Your task to perform on an android device: set the timer Image 0: 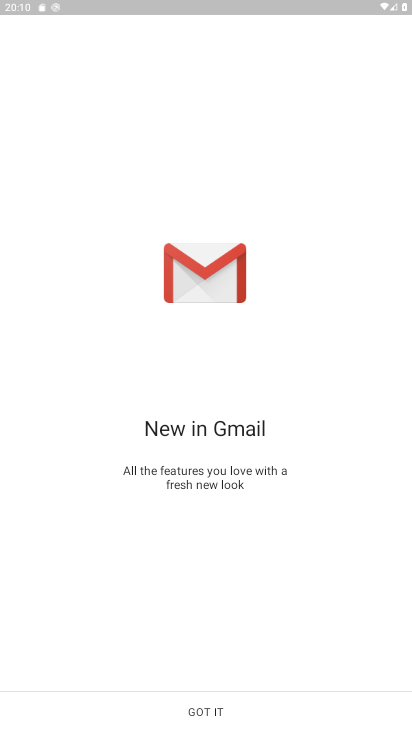
Step 0: press home button
Your task to perform on an android device: set the timer Image 1: 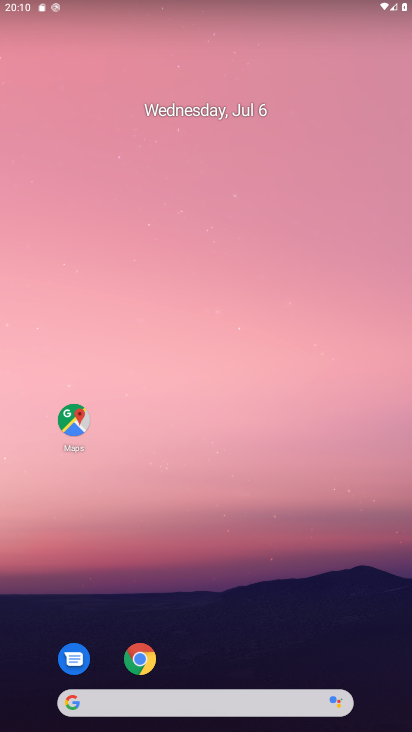
Step 1: drag from (134, 654) to (281, 114)
Your task to perform on an android device: set the timer Image 2: 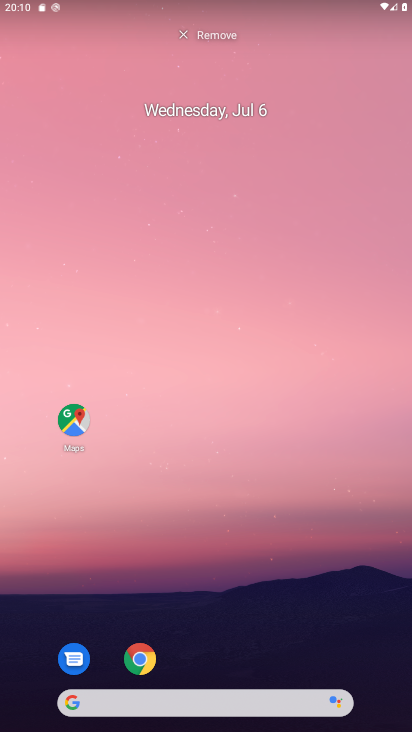
Step 2: click (219, 435)
Your task to perform on an android device: set the timer Image 3: 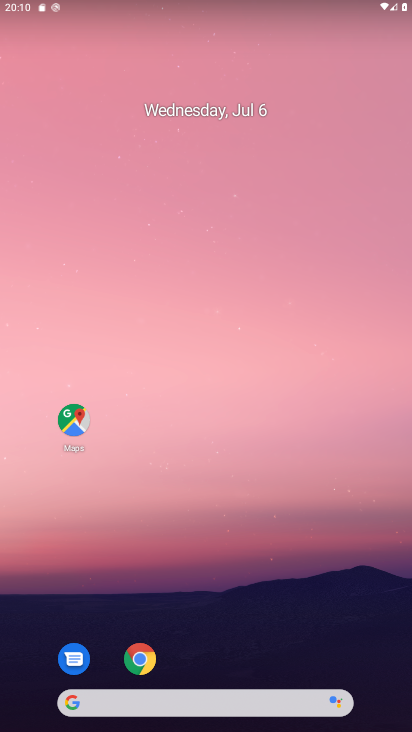
Step 3: drag from (208, 569) to (247, 145)
Your task to perform on an android device: set the timer Image 4: 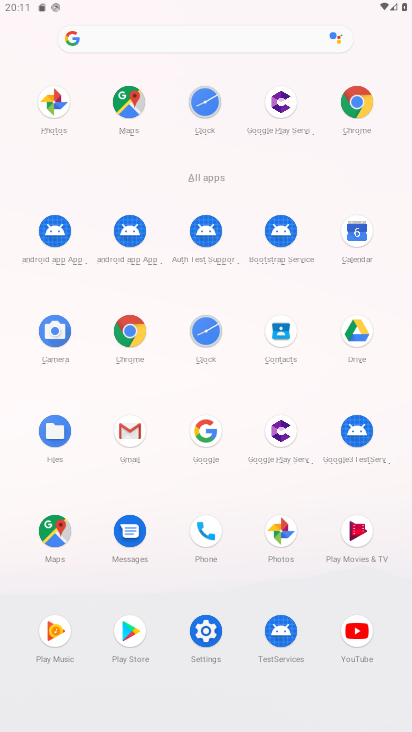
Step 4: click (210, 309)
Your task to perform on an android device: set the timer Image 5: 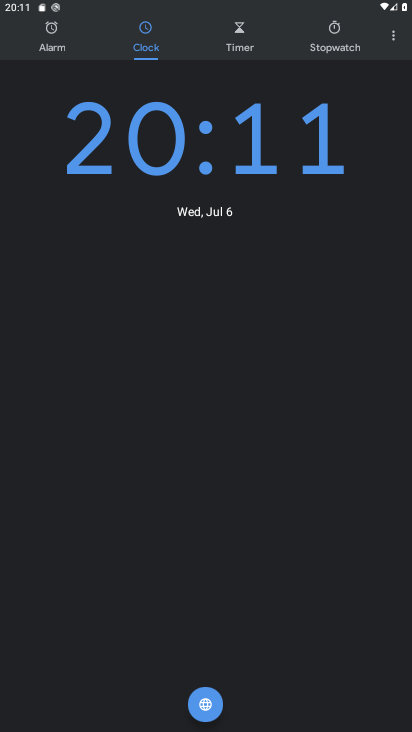
Step 5: click (396, 19)
Your task to perform on an android device: set the timer Image 6: 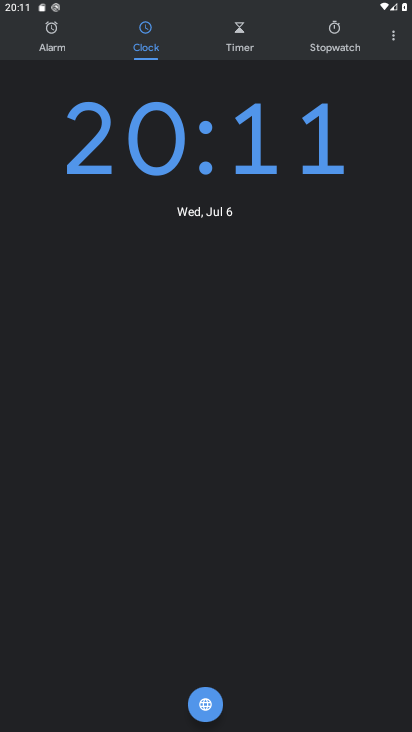
Step 6: click (248, 32)
Your task to perform on an android device: set the timer Image 7: 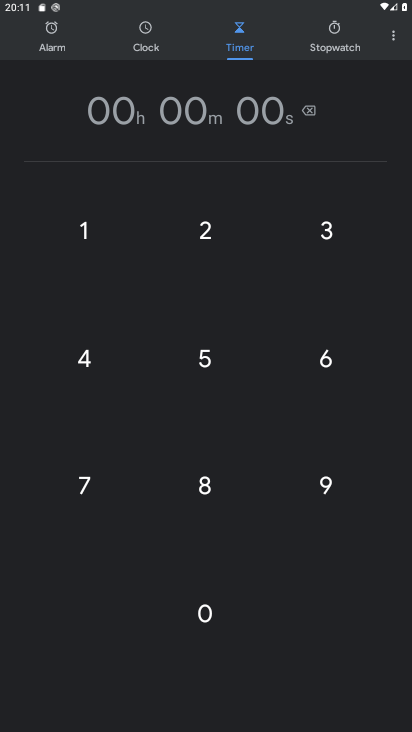
Step 7: click (341, 216)
Your task to perform on an android device: set the timer Image 8: 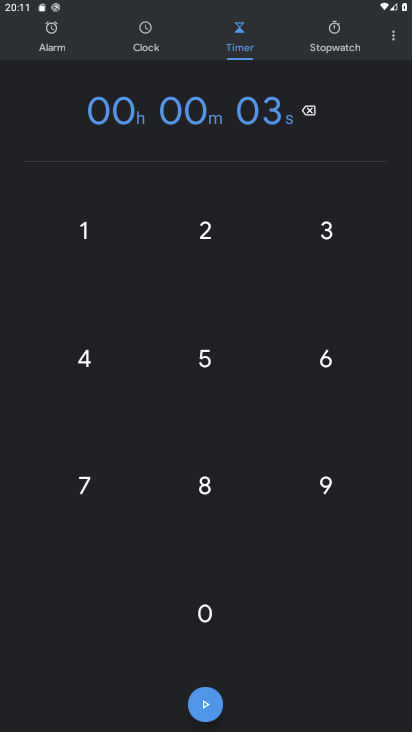
Step 8: click (226, 696)
Your task to perform on an android device: set the timer Image 9: 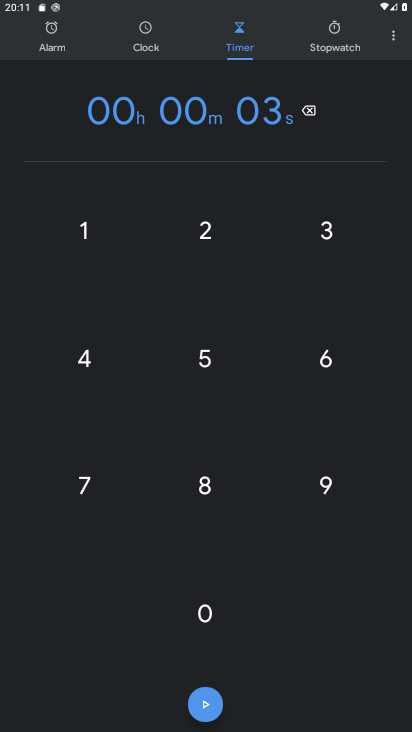
Step 9: click (203, 708)
Your task to perform on an android device: set the timer Image 10: 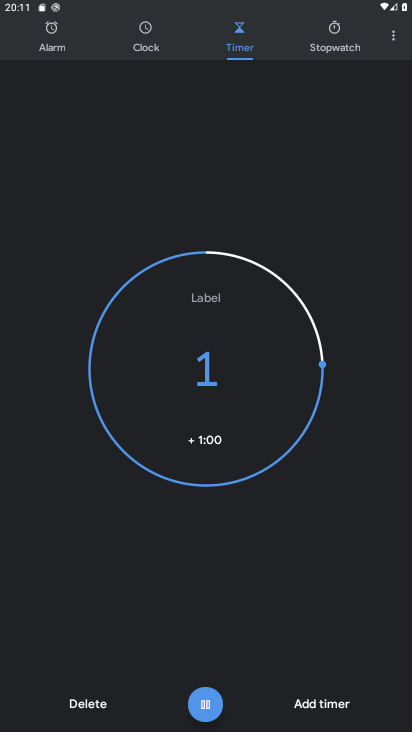
Step 10: task complete